Your task to perform on an android device: Add "bose soundlink" to the cart on target, then select checkout. Image 0: 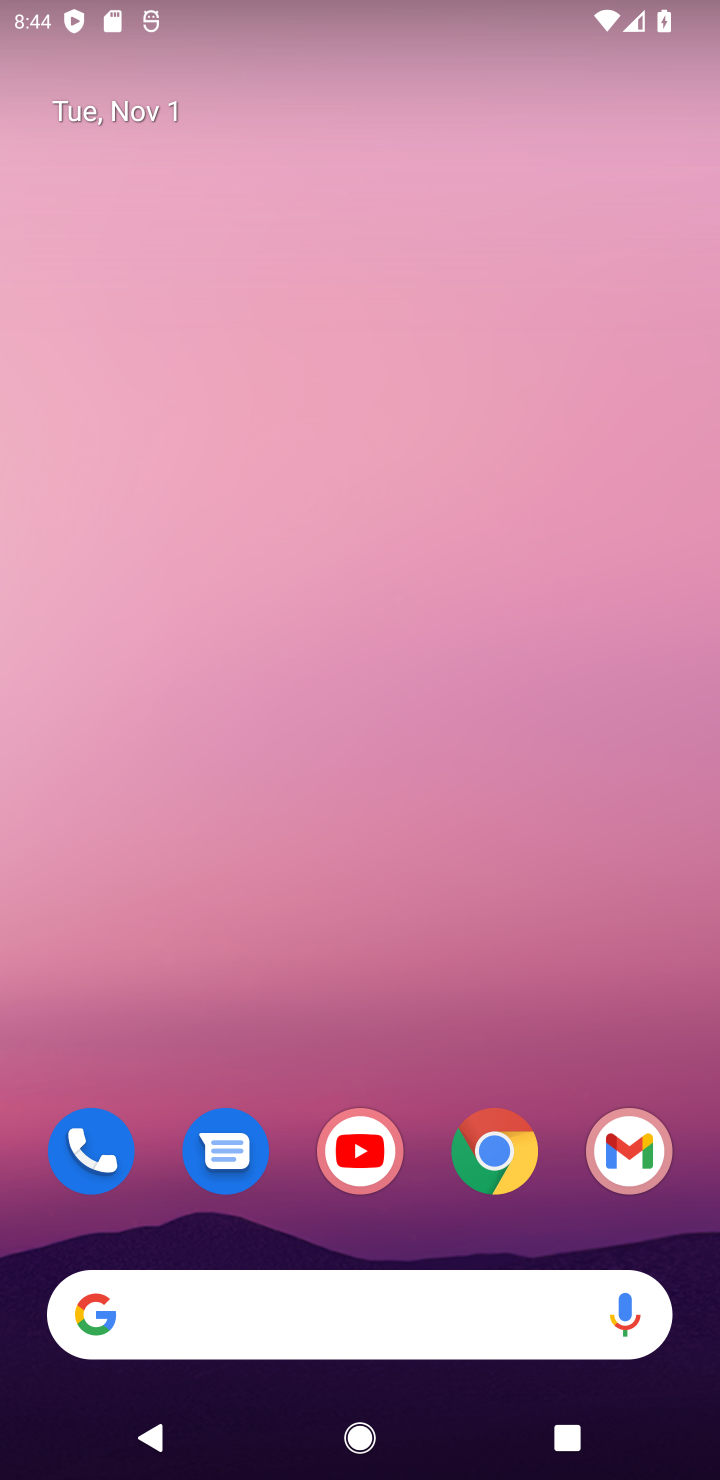
Step 0: click (503, 1154)
Your task to perform on an android device: Add "bose soundlink" to the cart on target, then select checkout. Image 1: 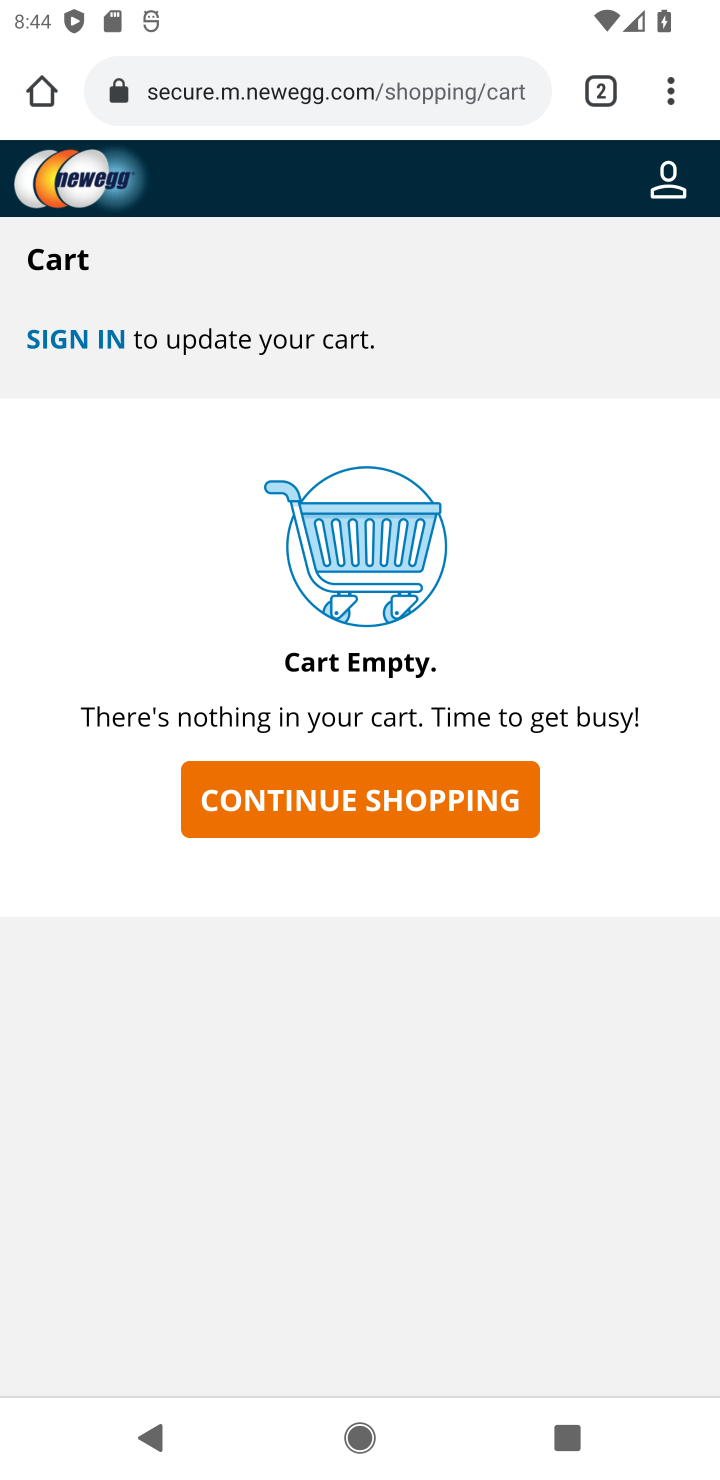
Step 1: click (587, 98)
Your task to perform on an android device: Add "bose soundlink" to the cart on target, then select checkout. Image 2: 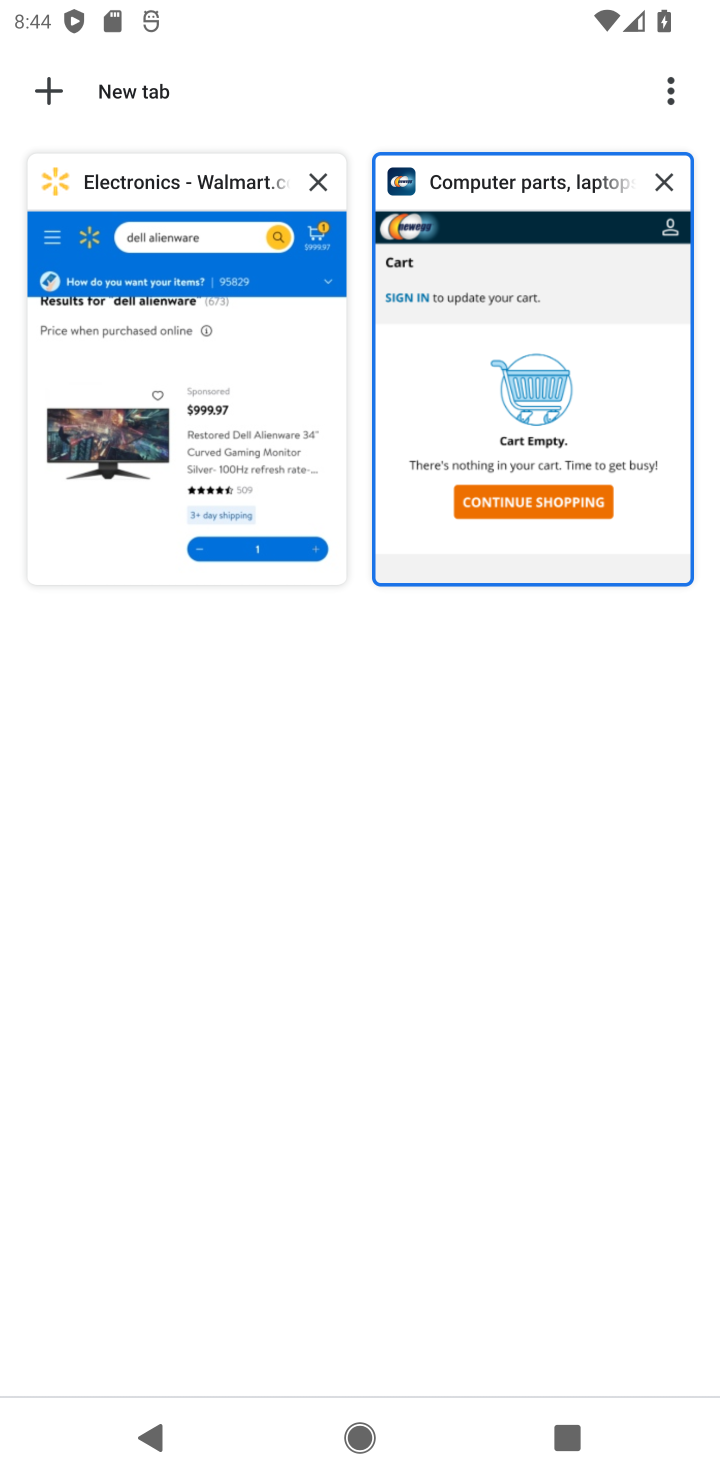
Step 2: click (36, 92)
Your task to perform on an android device: Add "bose soundlink" to the cart on target, then select checkout. Image 3: 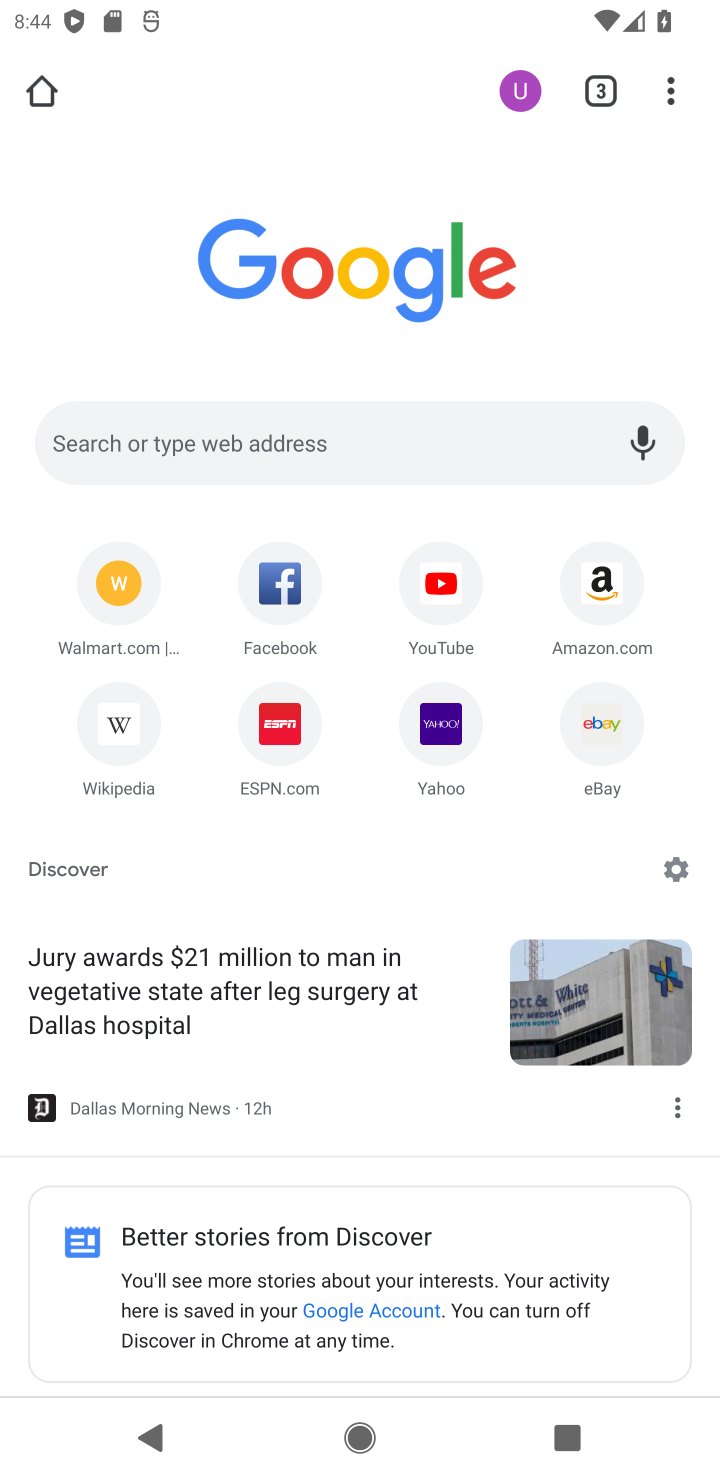
Step 3: click (315, 439)
Your task to perform on an android device: Add "bose soundlink" to the cart on target, then select checkout. Image 4: 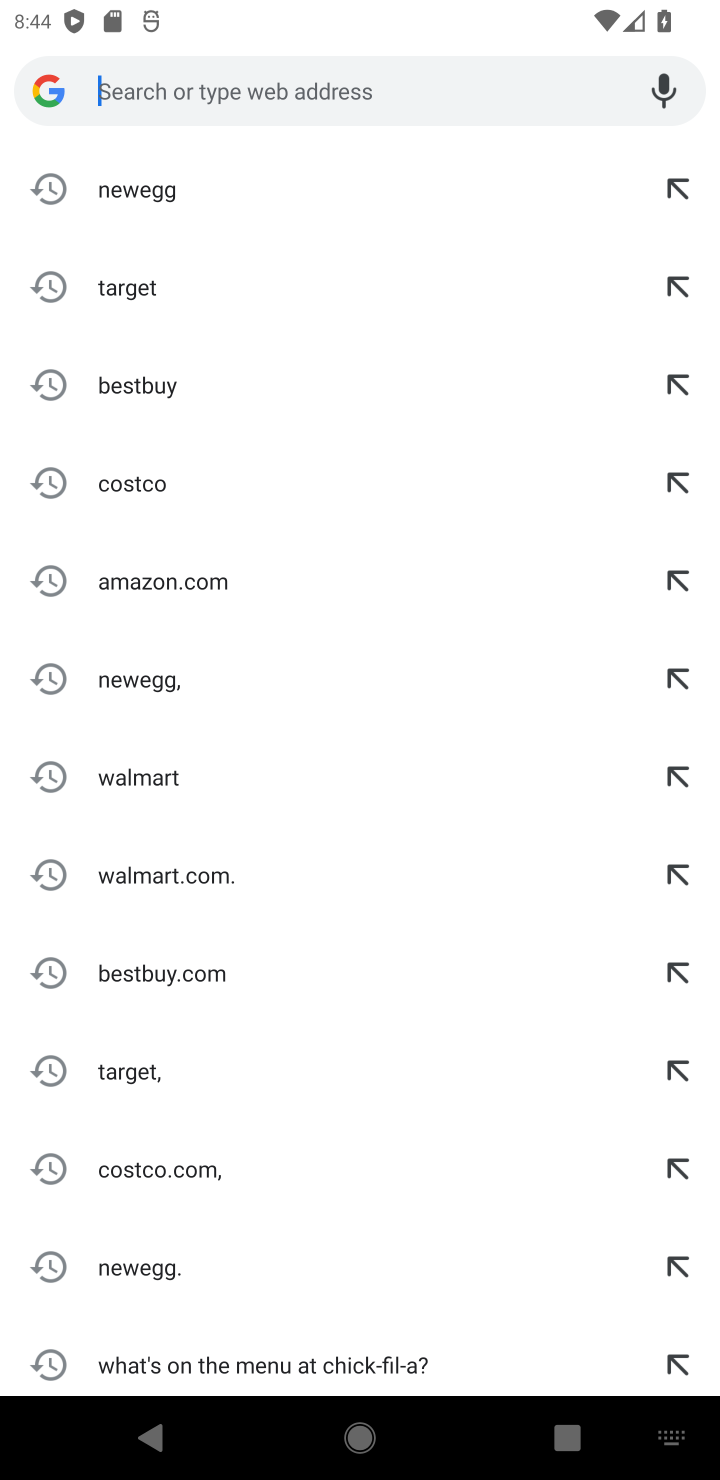
Step 4: press enter
Your task to perform on an android device: Add "bose soundlink" to the cart on target, then select checkout. Image 5: 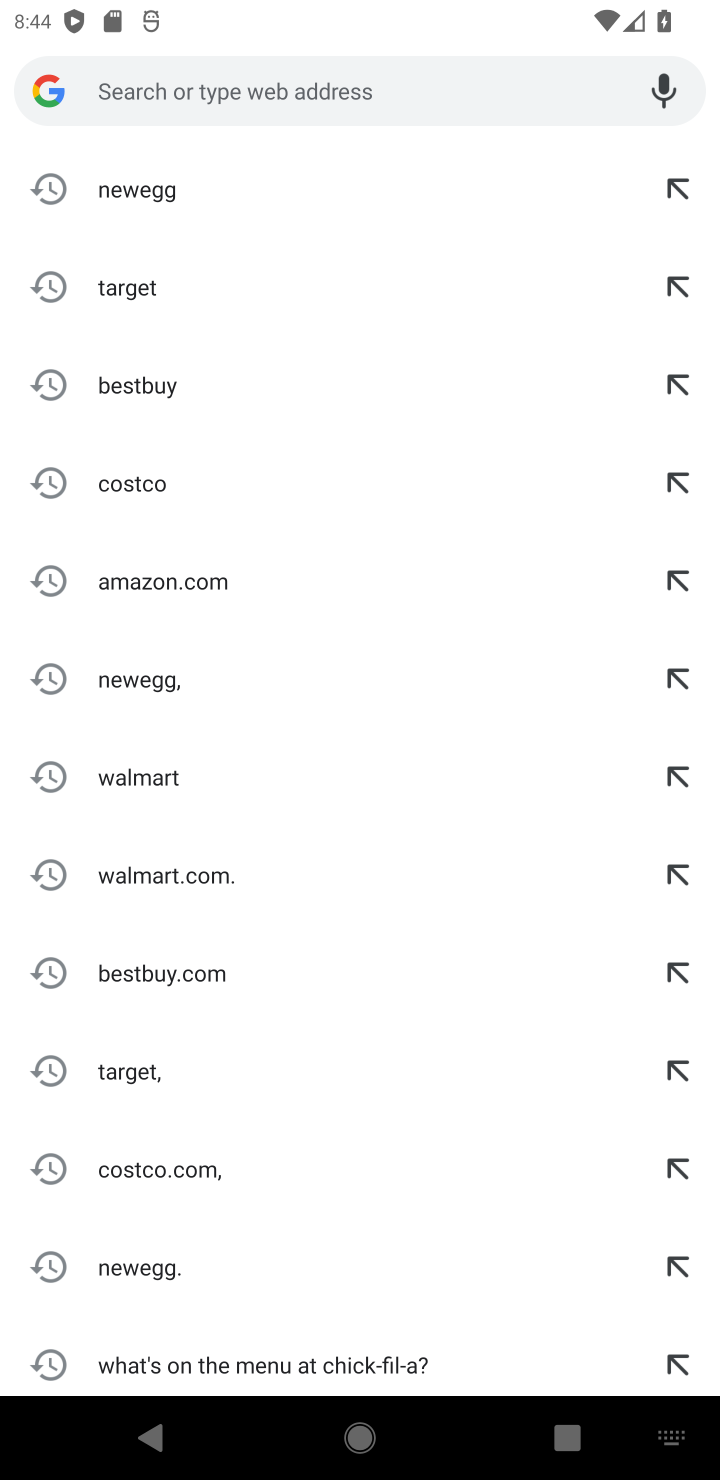
Step 5: type "target"
Your task to perform on an android device: Add "bose soundlink" to the cart on target, then select checkout. Image 6: 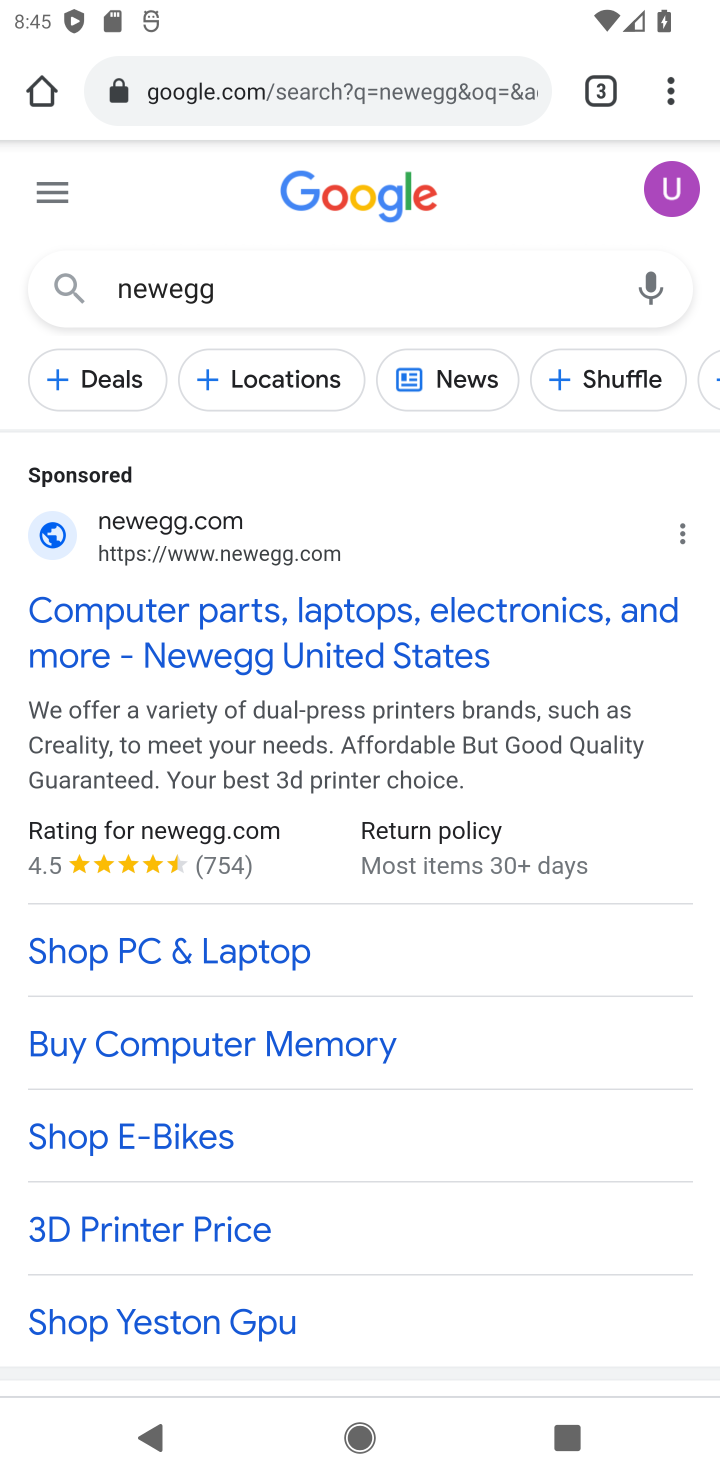
Step 6: click (227, 300)
Your task to perform on an android device: Add "bose soundlink" to the cart on target, then select checkout. Image 7: 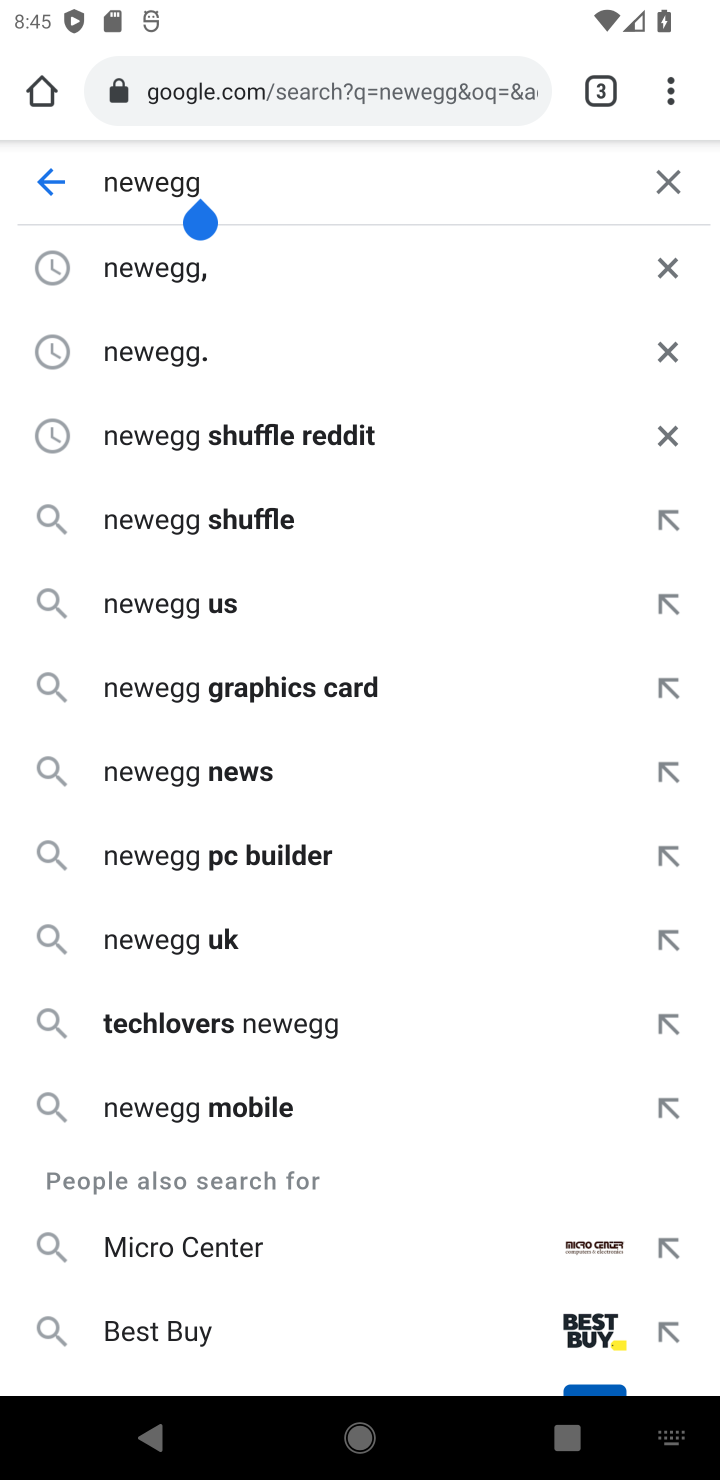
Step 7: click (668, 169)
Your task to perform on an android device: Add "bose soundlink" to the cart on target, then select checkout. Image 8: 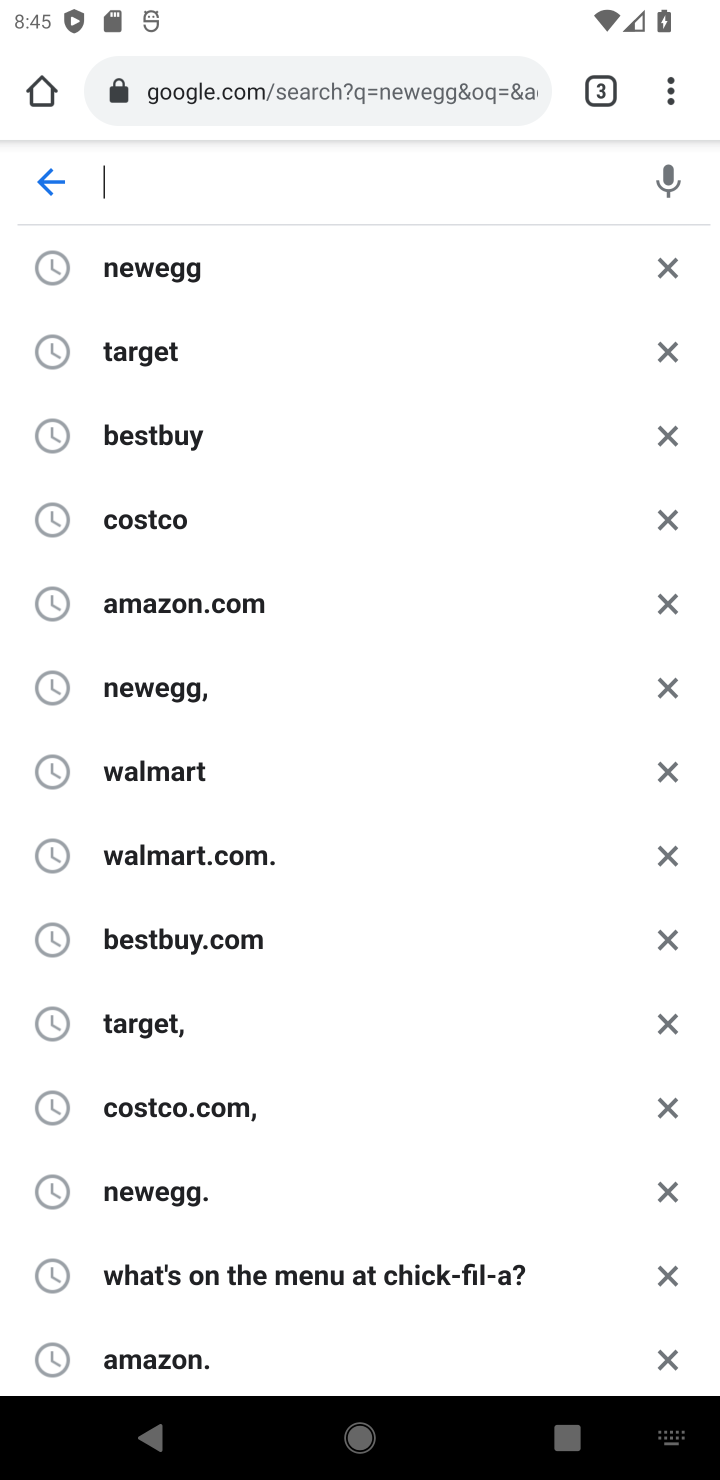
Step 8: click (111, 360)
Your task to perform on an android device: Add "bose soundlink" to the cart on target, then select checkout. Image 9: 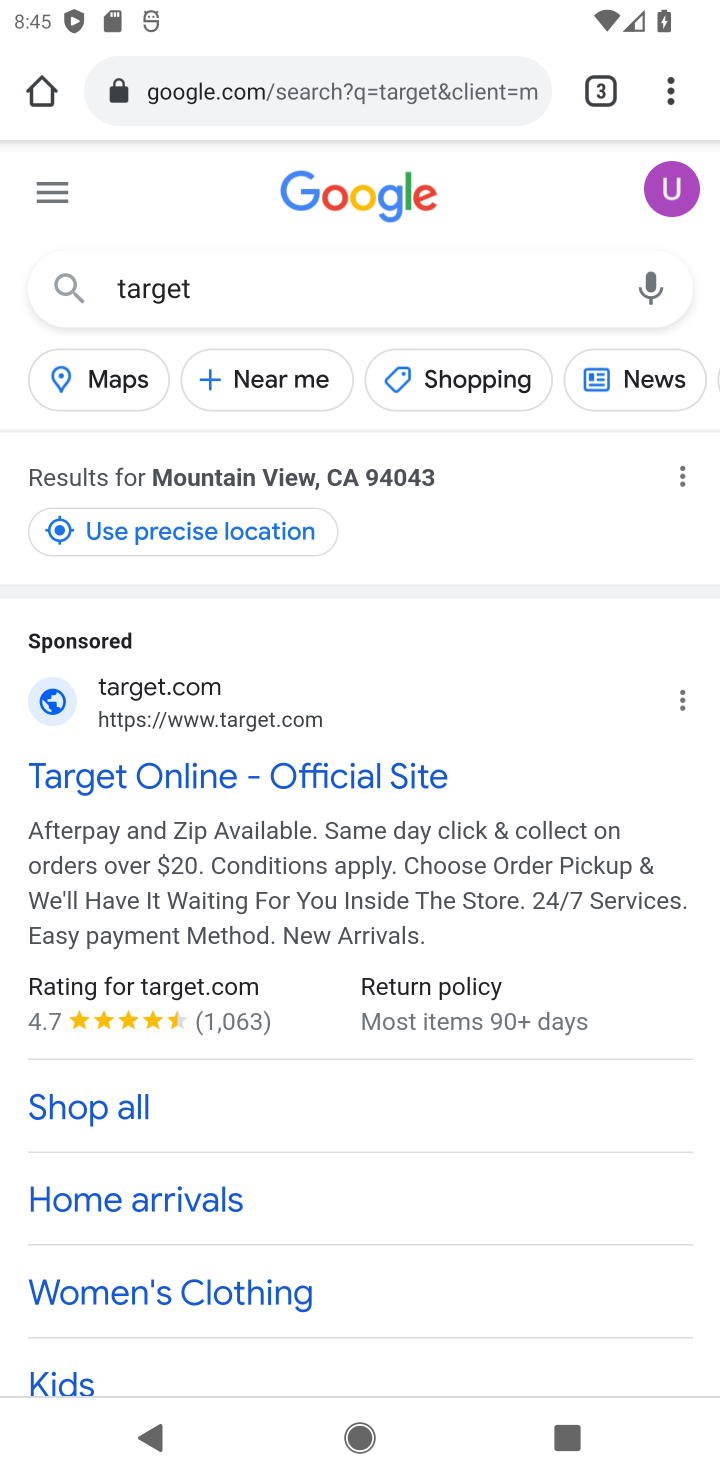
Step 9: drag from (277, 1350) to (472, 238)
Your task to perform on an android device: Add "bose soundlink" to the cart on target, then select checkout. Image 10: 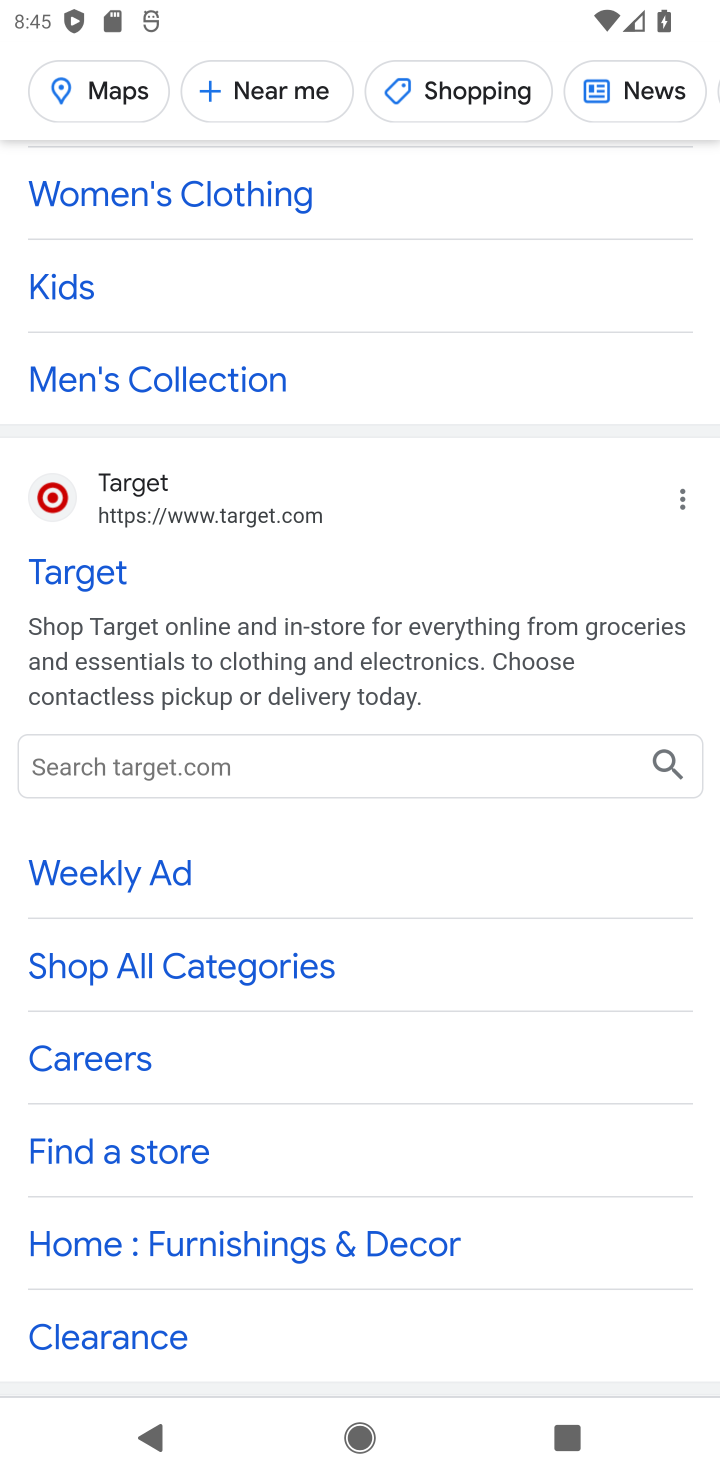
Step 10: click (63, 571)
Your task to perform on an android device: Add "bose soundlink" to the cart on target, then select checkout. Image 11: 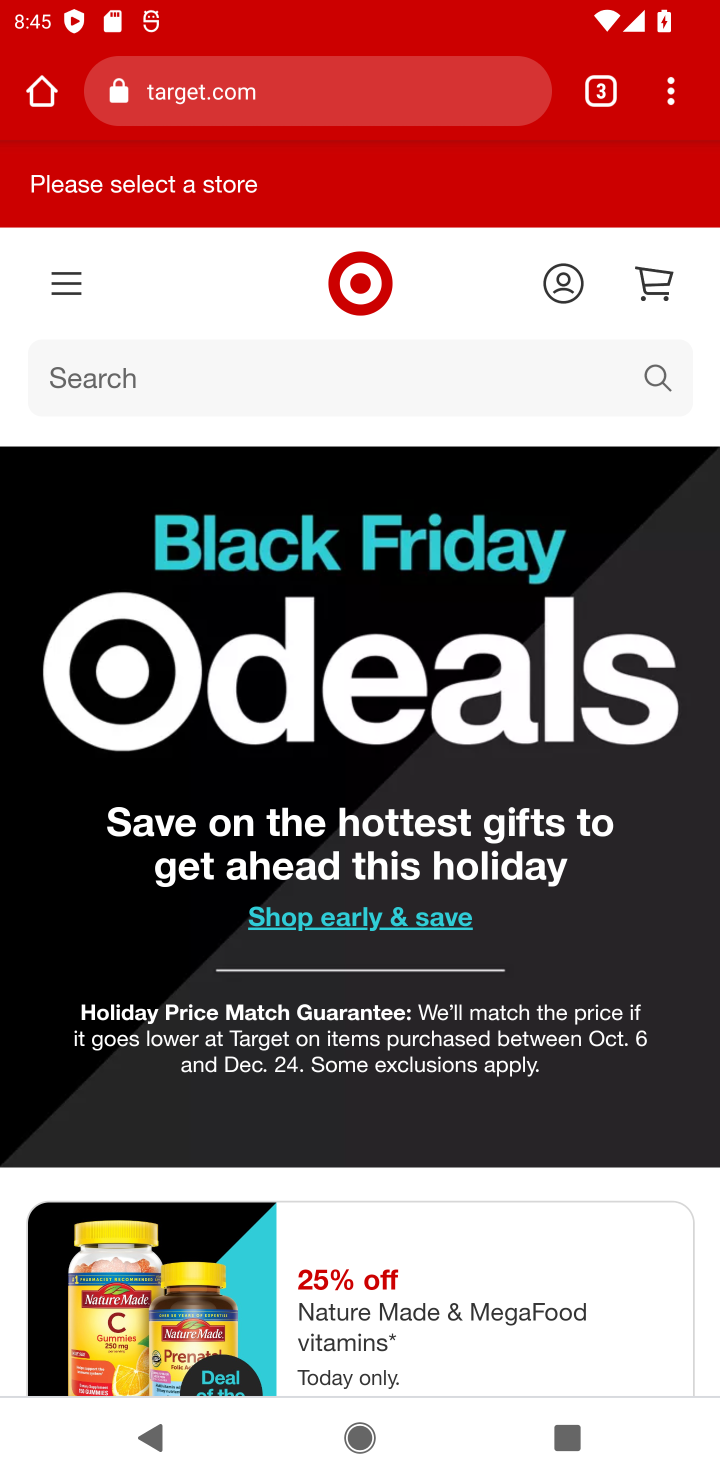
Step 11: click (397, 407)
Your task to perform on an android device: Add "bose soundlink" to the cart on target, then select checkout. Image 12: 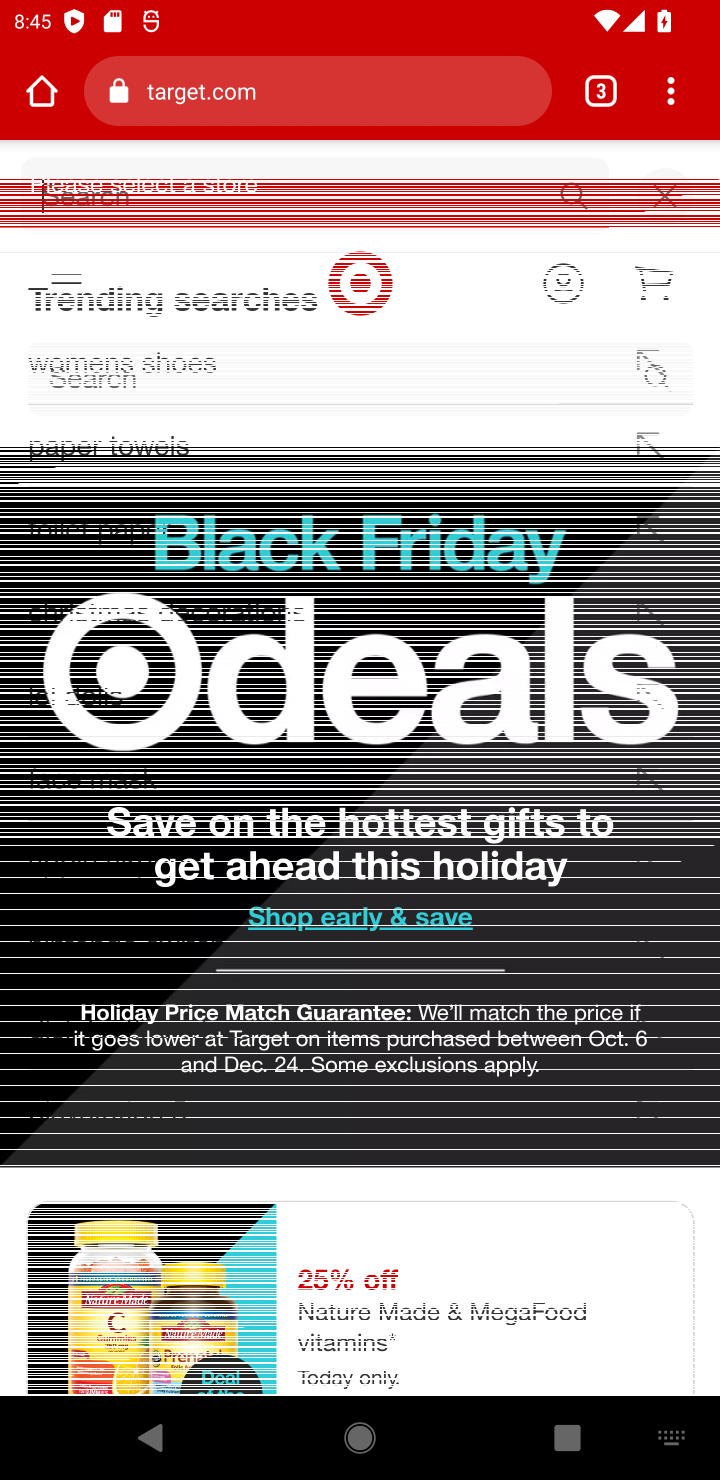
Step 12: press enter
Your task to perform on an android device: Add "bose soundlink" to the cart on target, then select checkout. Image 13: 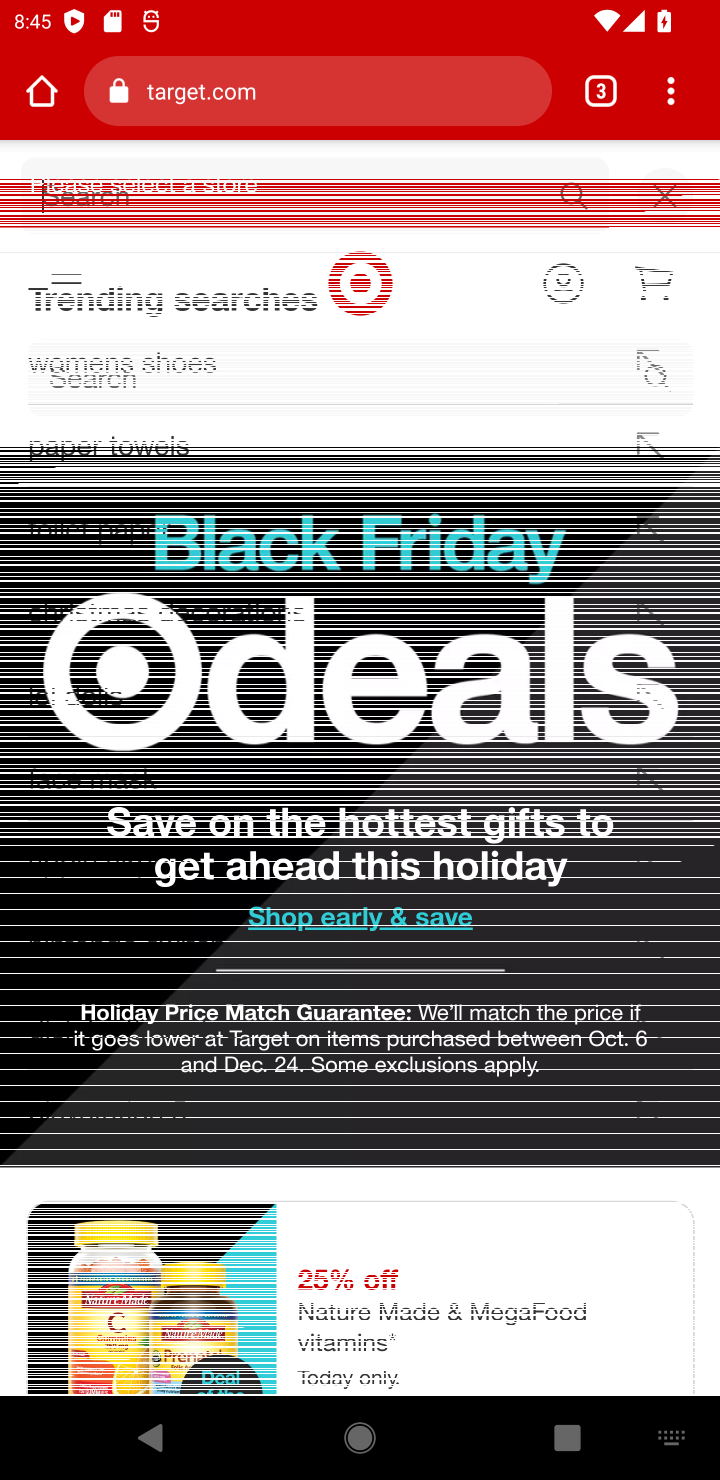
Step 13: type "bose soundlink"
Your task to perform on an android device: Add "bose soundlink" to the cart on target, then select checkout. Image 14: 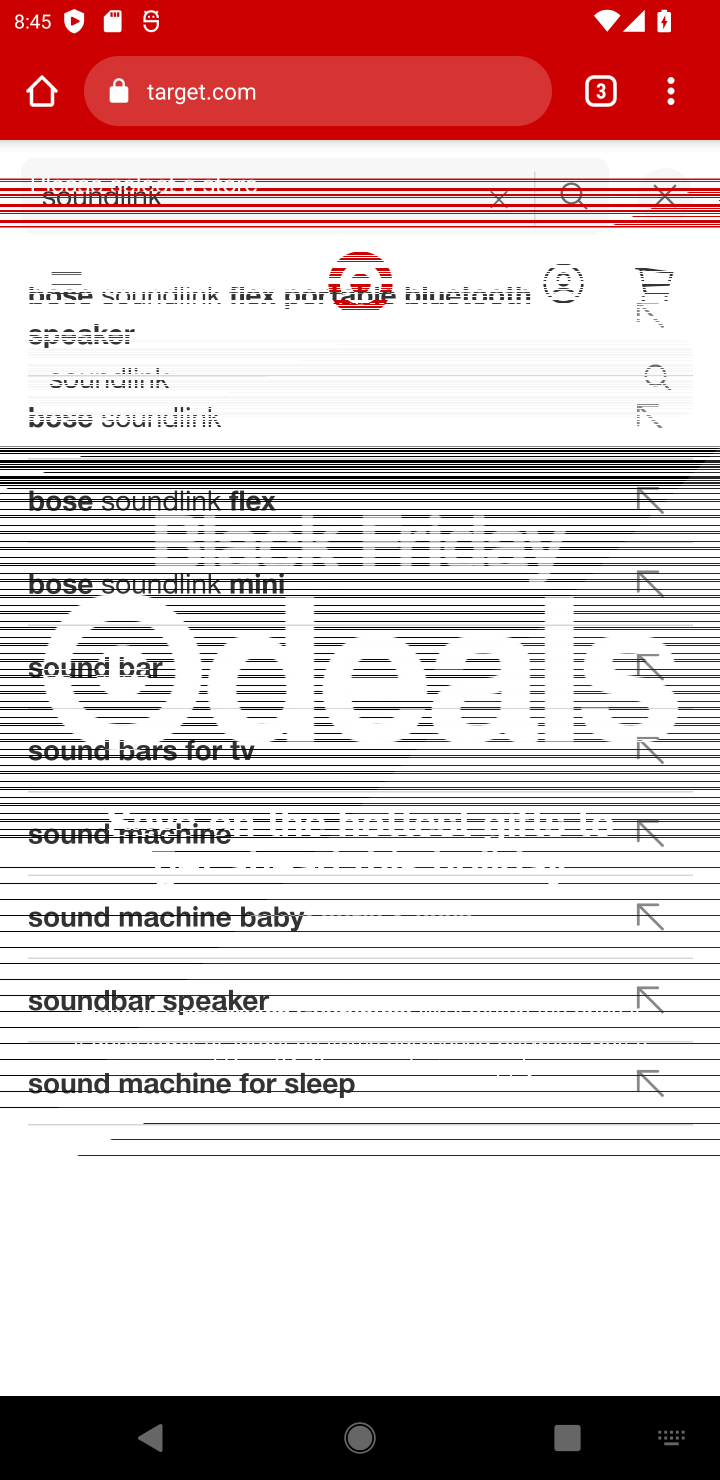
Step 14: click (292, 285)
Your task to perform on an android device: Add "bose soundlink" to the cart on target, then select checkout. Image 15: 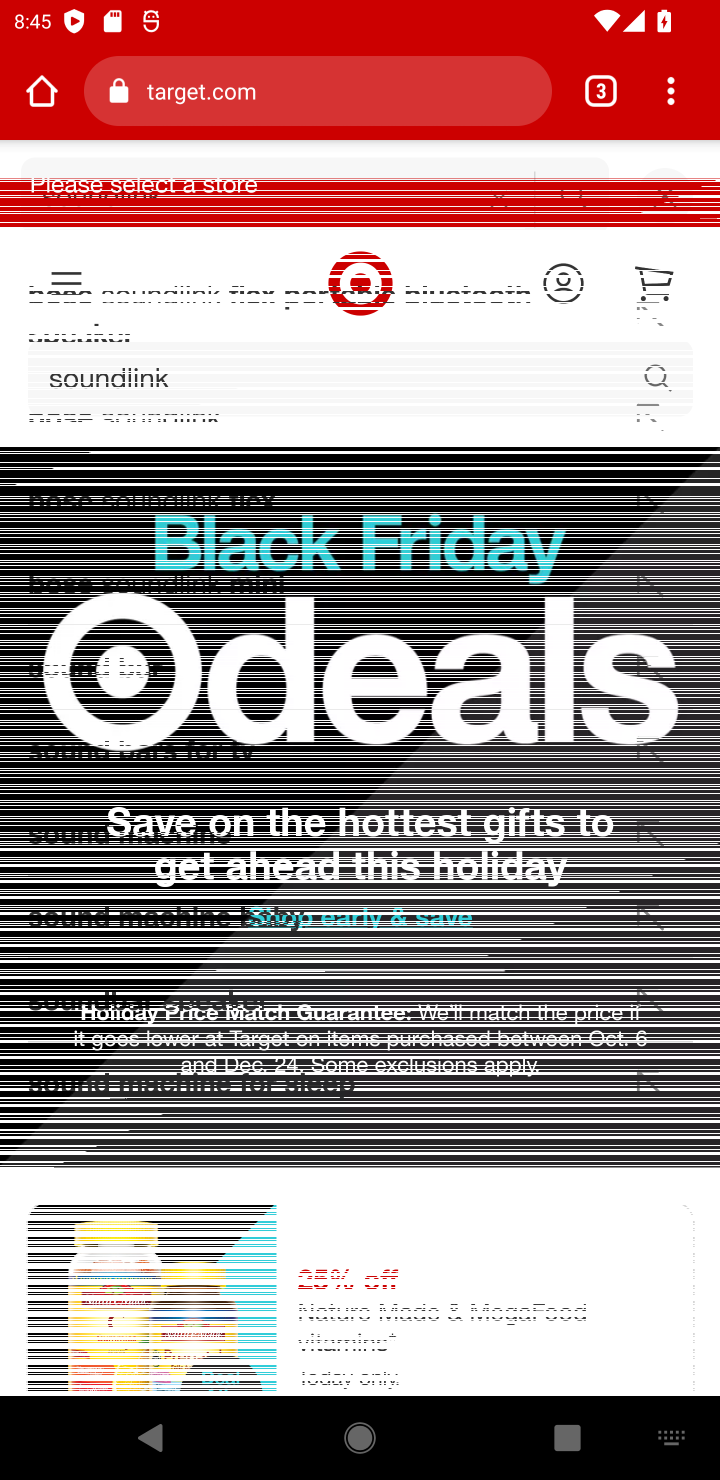
Step 15: click (292, 285)
Your task to perform on an android device: Add "bose soundlink" to the cart on target, then select checkout. Image 16: 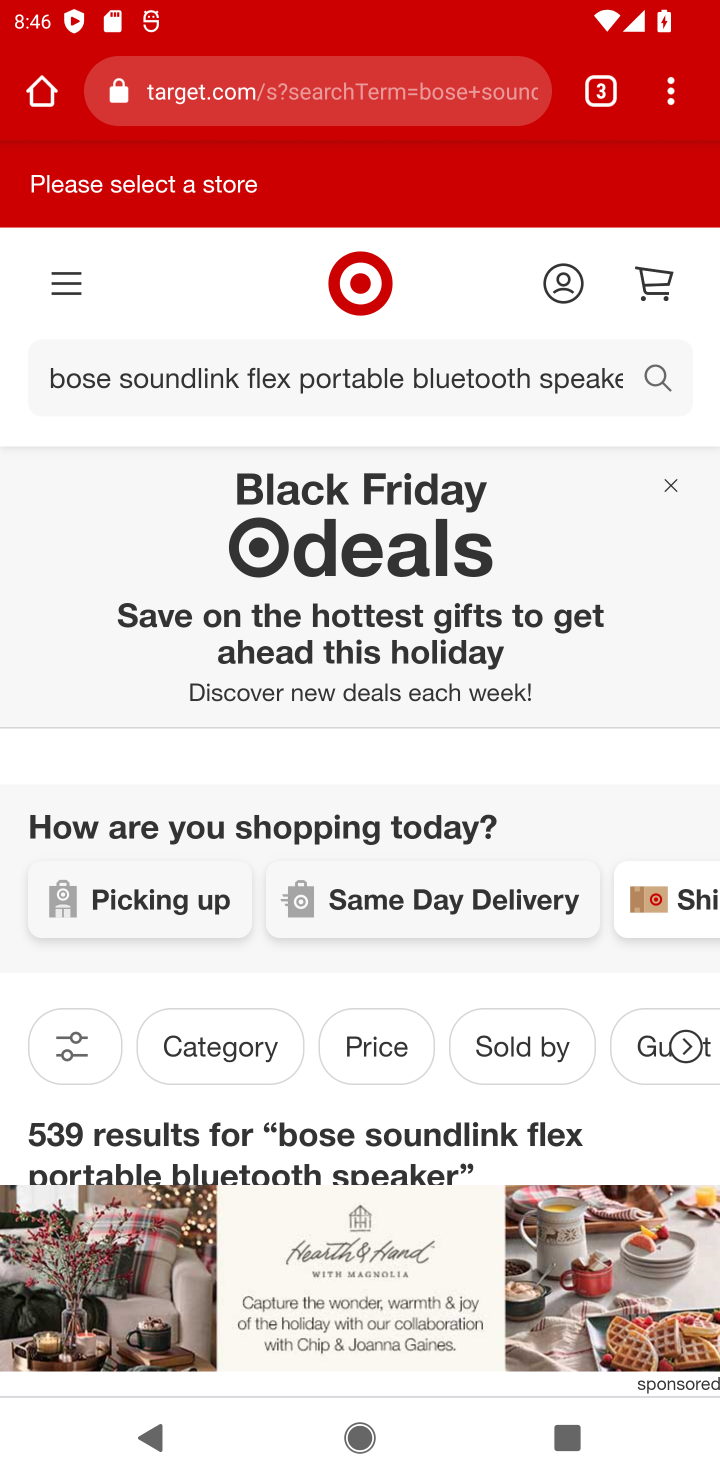
Step 16: drag from (267, 1168) to (281, 492)
Your task to perform on an android device: Add "bose soundlink" to the cart on target, then select checkout. Image 17: 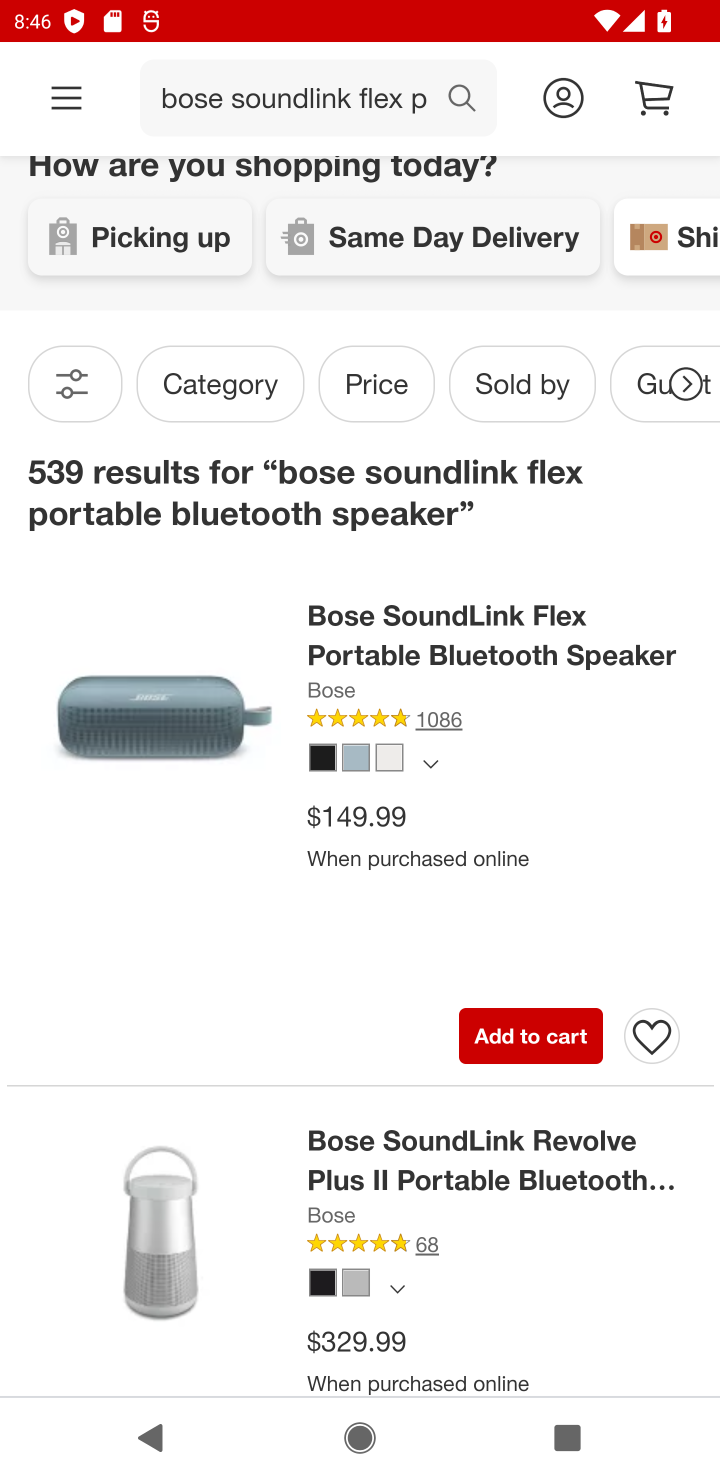
Step 17: click (510, 1046)
Your task to perform on an android device: Add "bose soundlink" to the cart on target, then select checkout. Image 18: 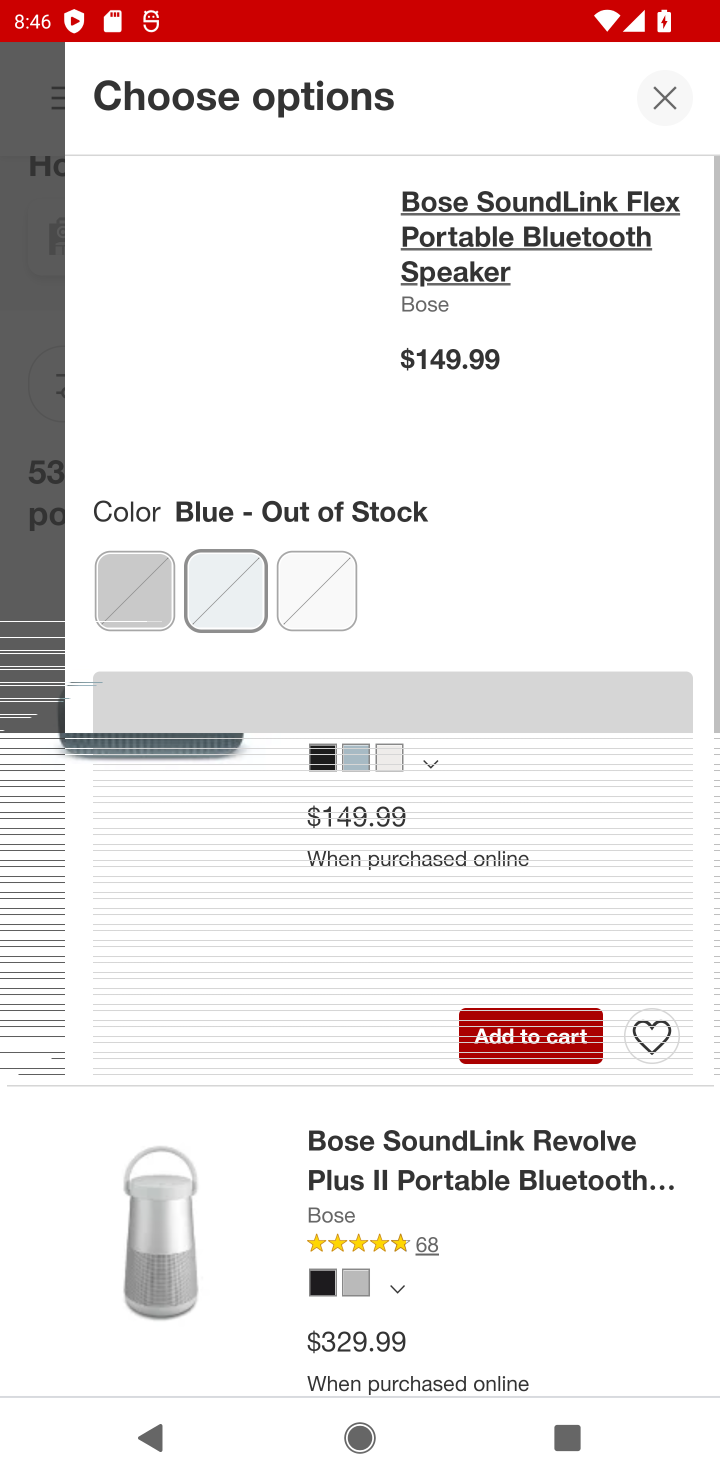
Step 18: click (533, 1037)
Your task to perform on an android device: Add "bose soundlink" to the cart on target, then select checkout. Image 19: 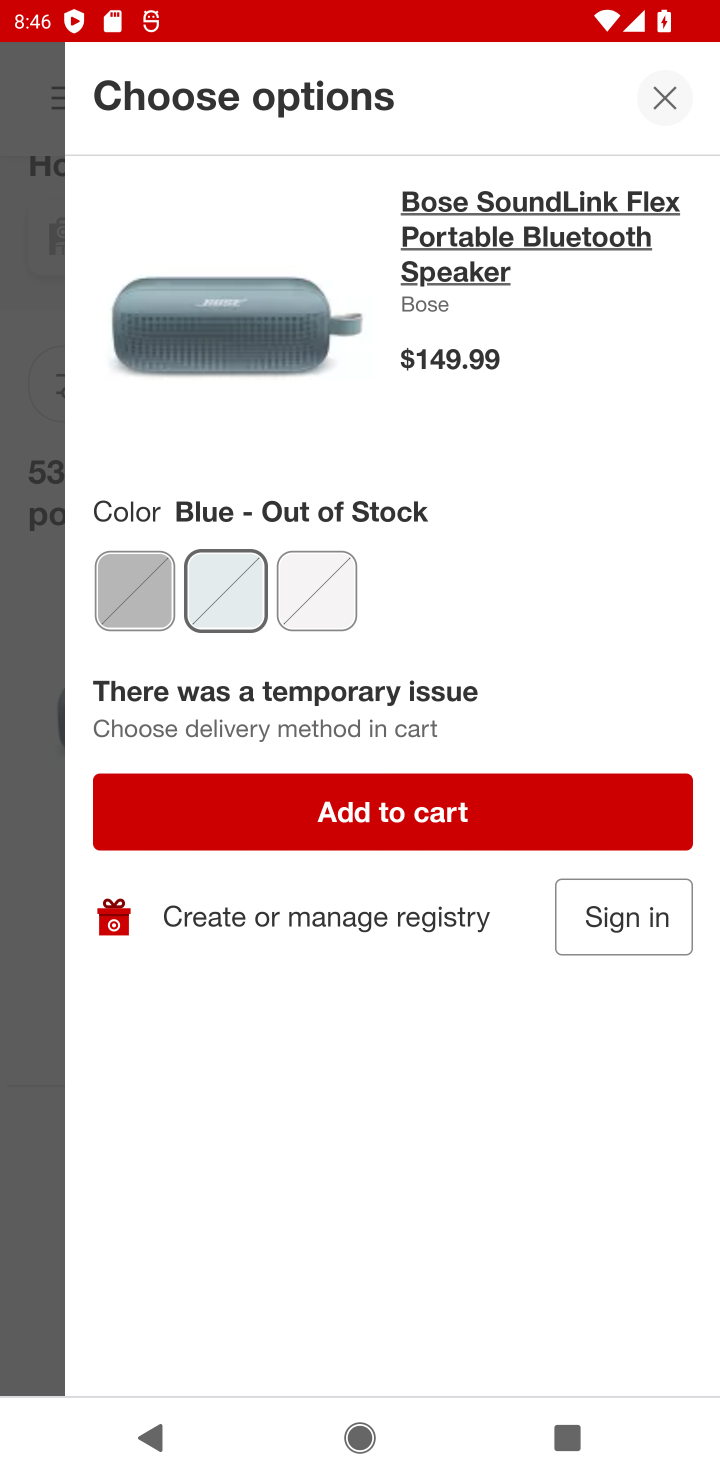
Step 19: click (461, 816)
Your task to perform on an android device: Add "bose soundlink" to the cart on target, then select checkout. Image 20: 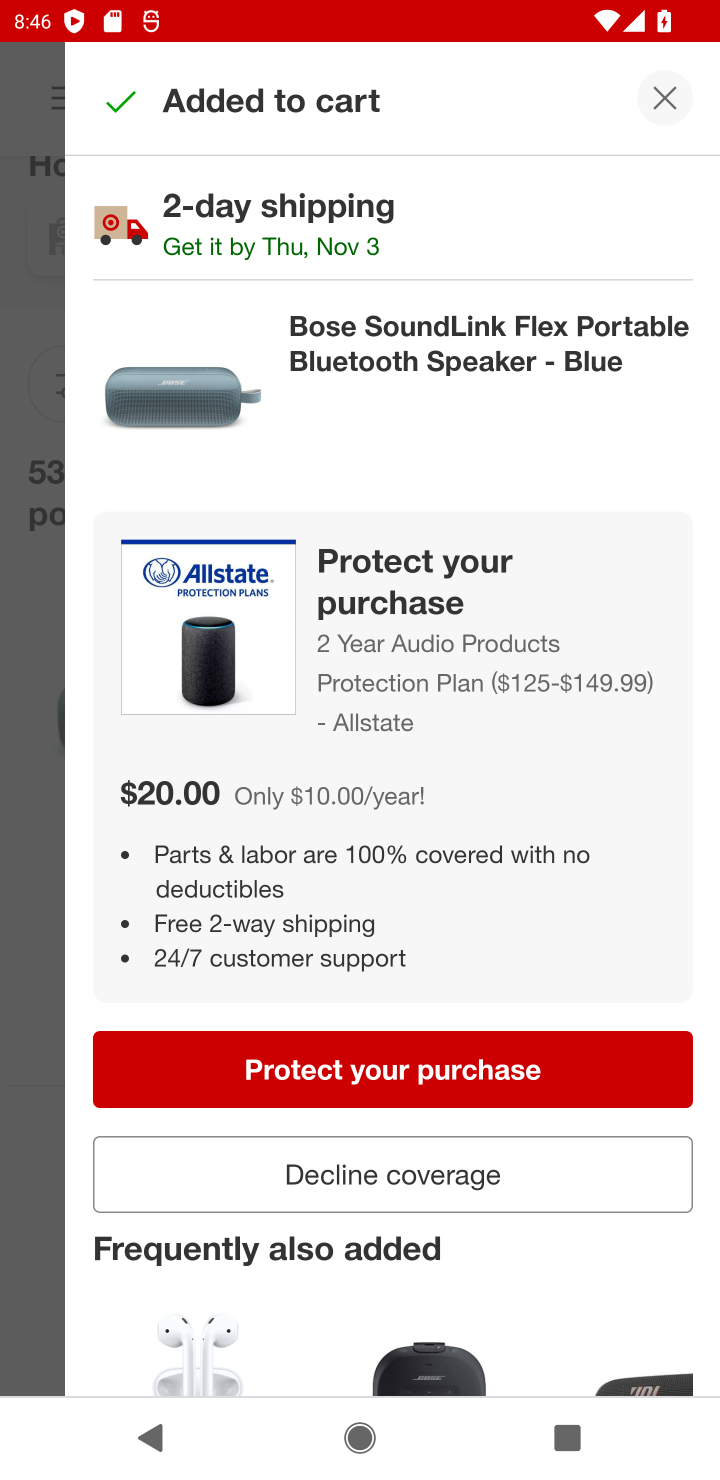
Step 20: click (386, 1194)
Your task to perform on an android device: Add "bose soundlink" to the cart on target, then select checkout. Image 21: 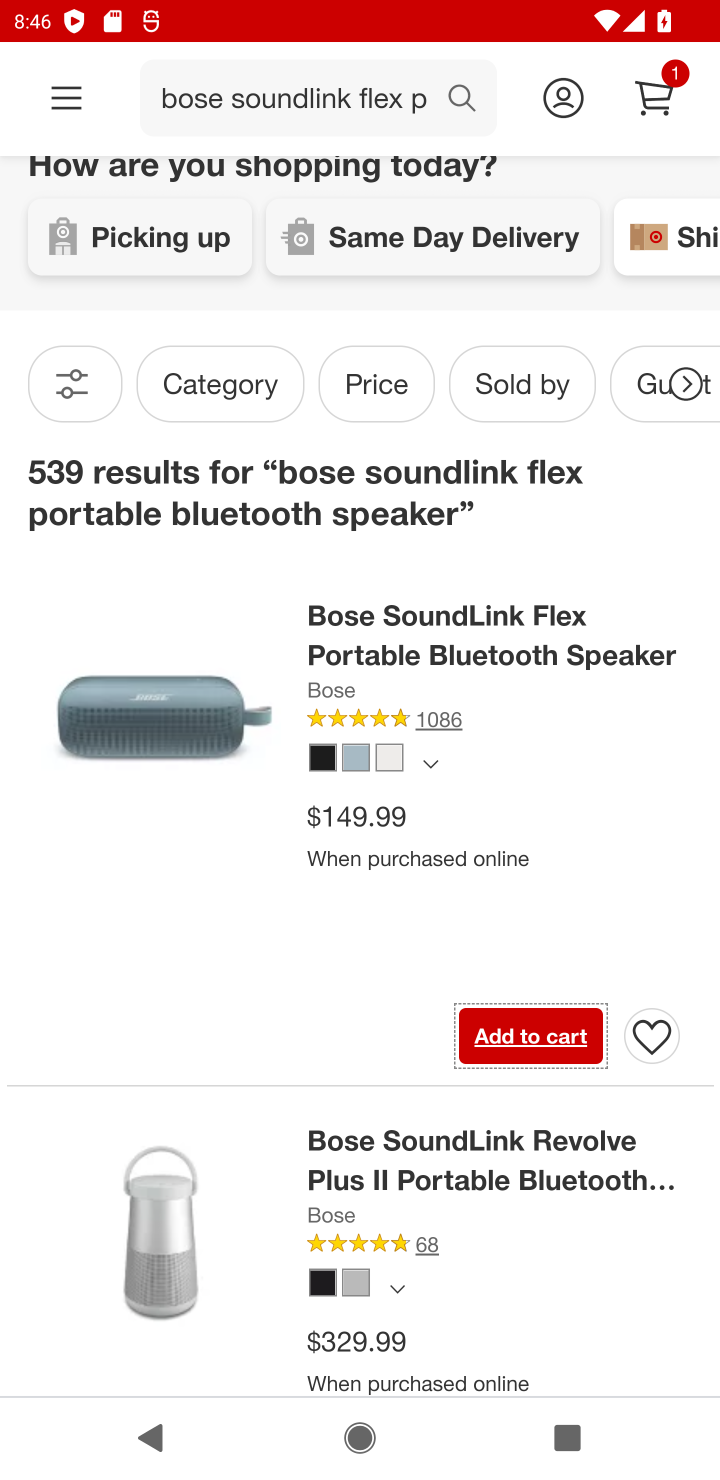
Step 21: click (662, 92)
Your task to perform on an android device: Add "bose soundlink" to the cart on target, then select checkout. Image 22: 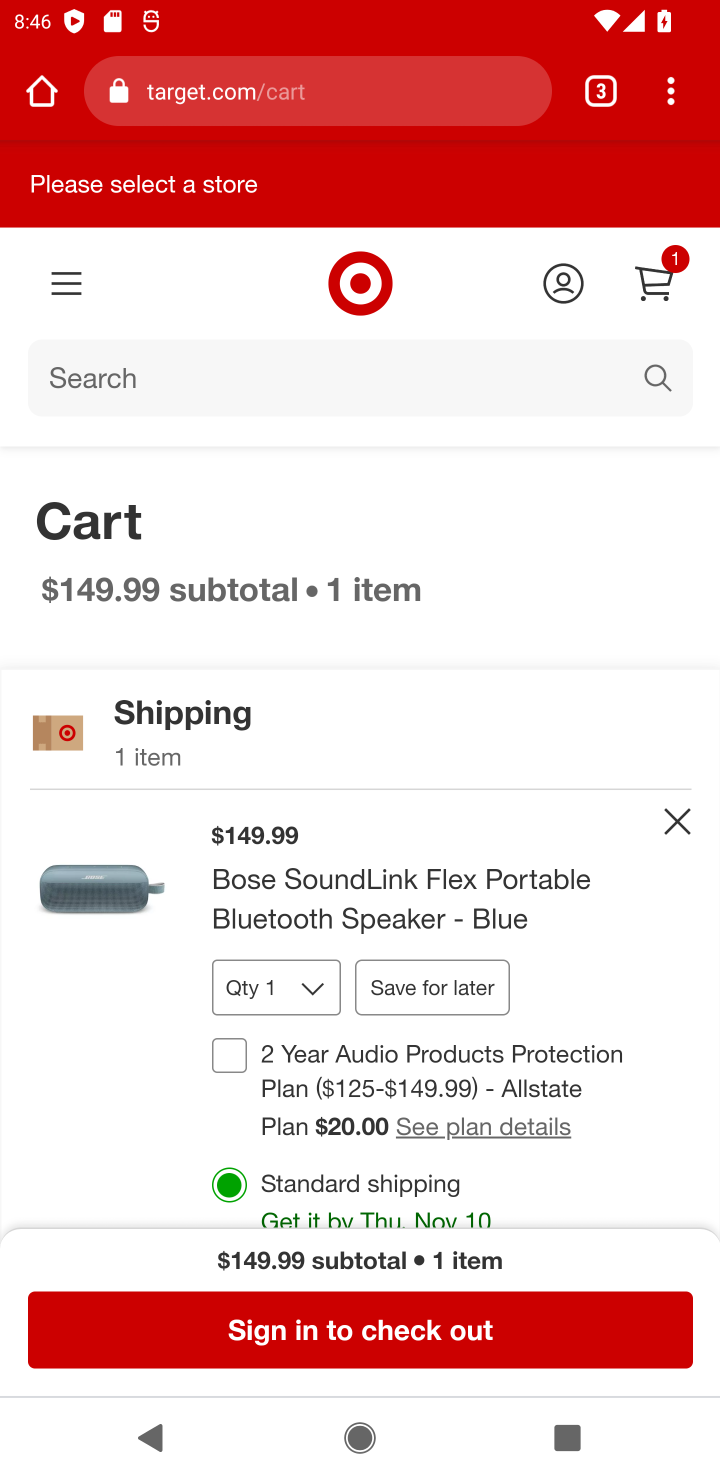
Step 22: click (348, 1335)
Your task to perform on an android device: Add "bose soundlink" to the cart on target, then select checkout. Image 23: 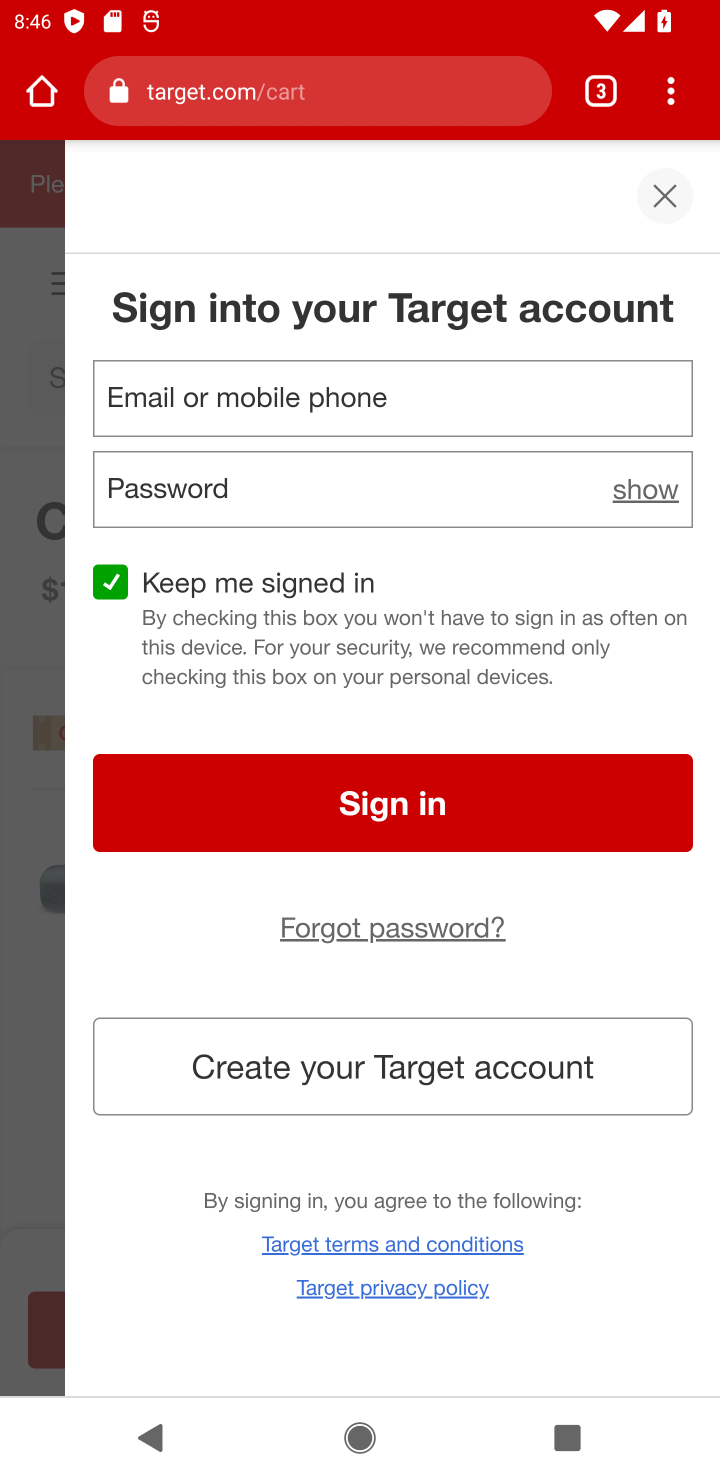
Step 23: task complete